Your task to perform on an android device: turn on the 24-hour format for clock Image 0: 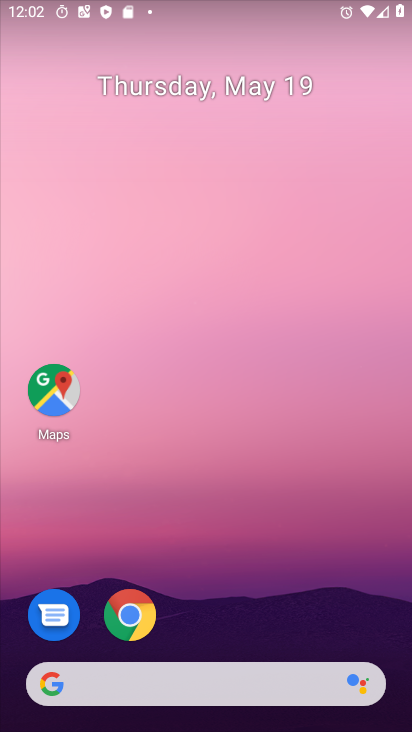
Step 0: drag from (37, 372) to (189, 162)
Your task to perform on an android device: turn on the 24-hour format for clock Image 1: 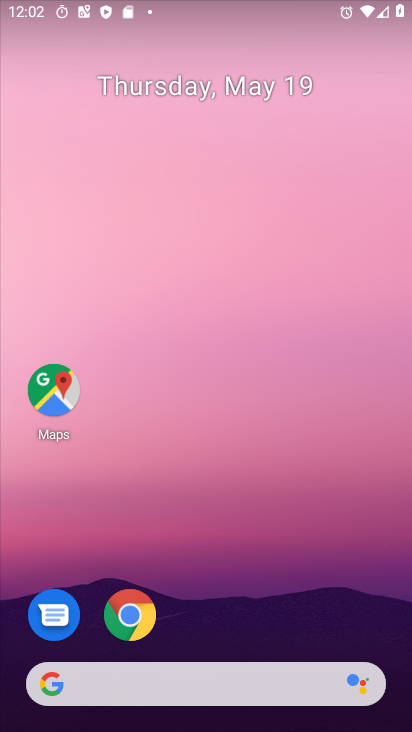
Step 1: drag from (80, 438) to (259, 153)
Your task to perform on an android device: turn on the 24-hour format for clock Image 2: 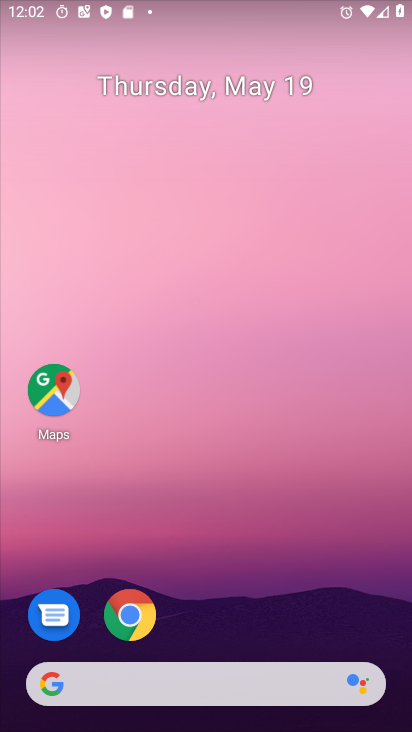
Step 2: drag from (1, 643) to (318, 104)
Your task to perform on an android device: turn on the 24-hour format for clock Image 3: 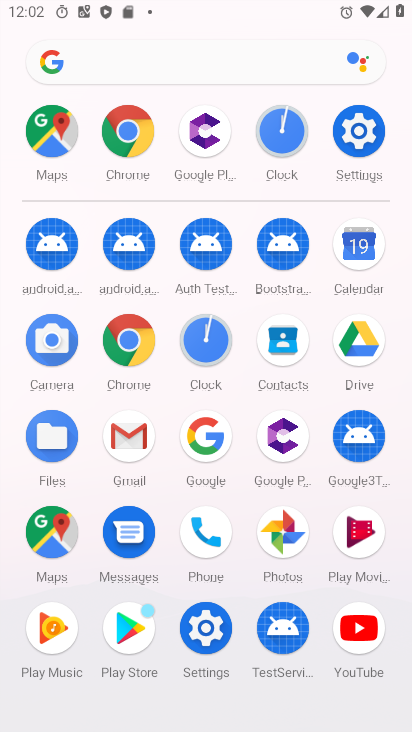
Step 3: click (293, 137)
Your task to perform on an android device: turn on the 24-hour format for clock Image 4: 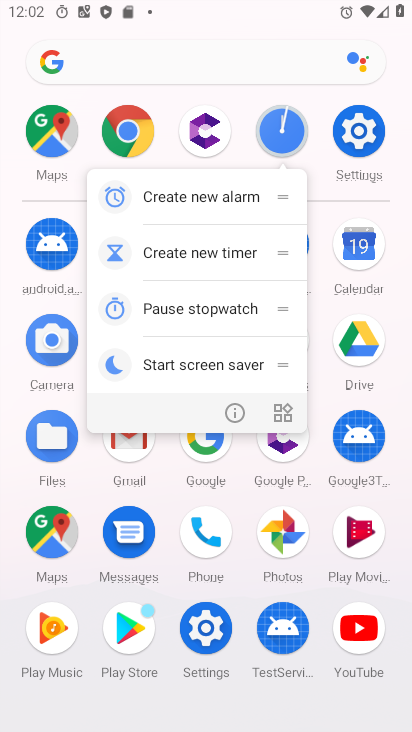
Step 4: click (280, 132)
Your task to perform on an android device: turn on the 24-hour format for clock Image 5: 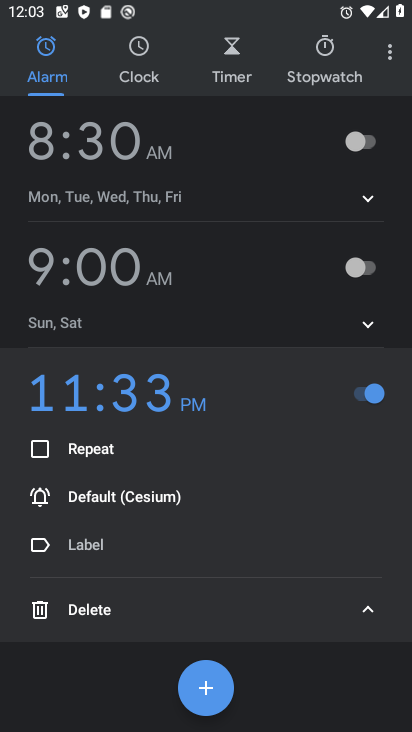
Step 5: click (382, 54)
Your task to perform on an android device: turn on the 24-hour format for clock Image 6: 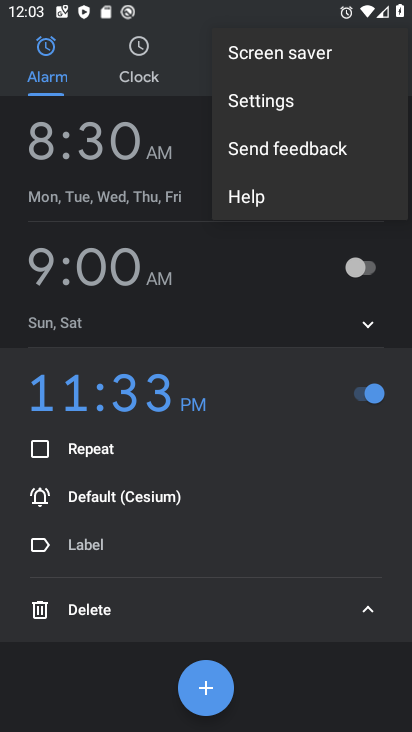
Step 6: click (276, 107)
Your task to perform on an android device: turn on the 24-hour format for clock Image 7: 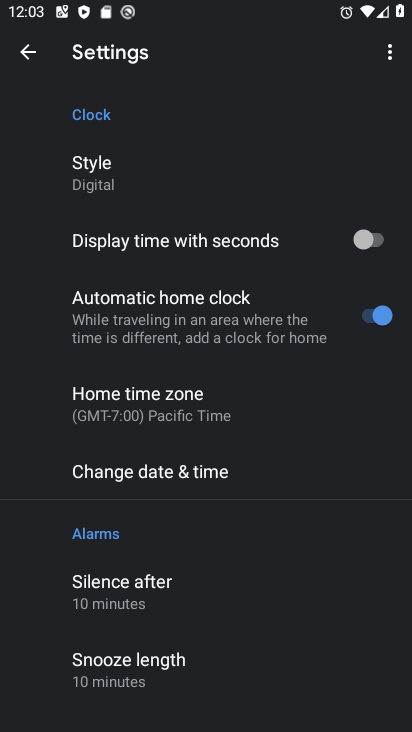
Step 7: click (174, 466)
Your task to perform on an android device: turn on the 24-hour format for clock Image 8: 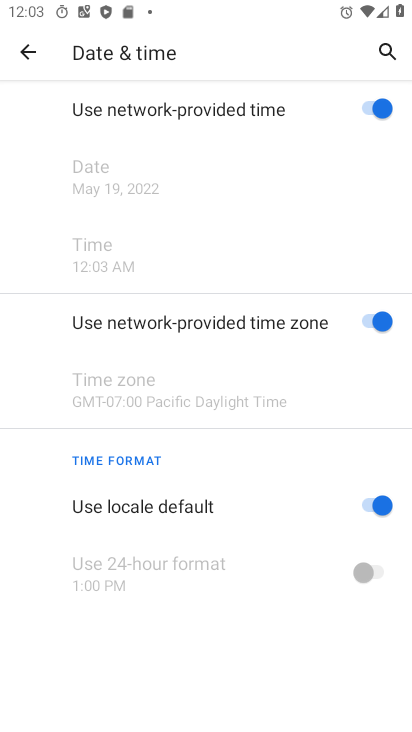
Step 8: click (383, 506)
Your task to perform on an android device: turn on the 24-hour format for clock Image 9: 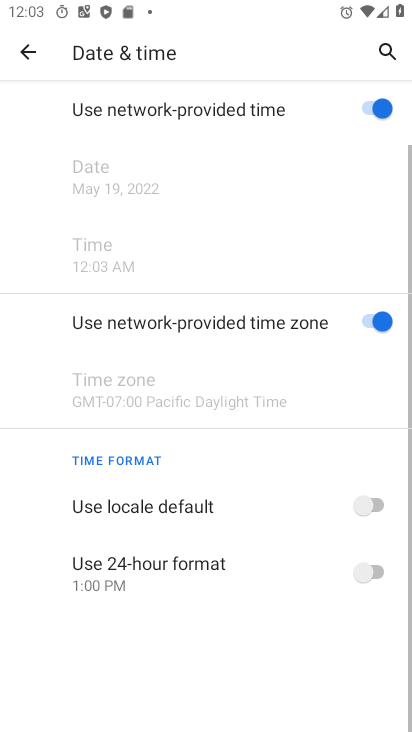
Step 9: click (370, 577)
Your task to perform on an android device: turn on the 24-hour format for clock Image 10: 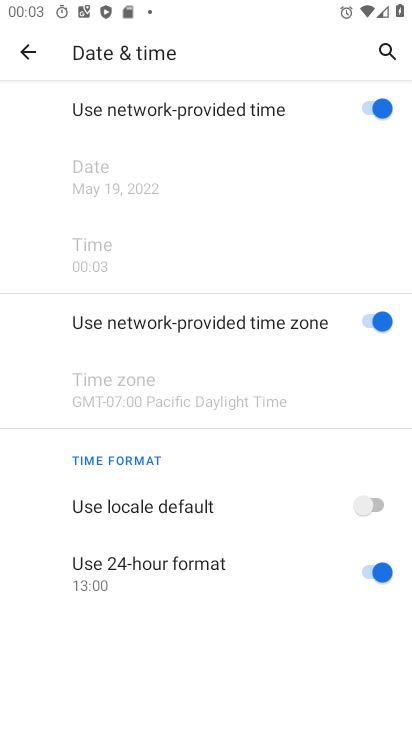
Step 10: task complete